Your task to perform on an android device: toggle pop-ups in chrome Image 0: 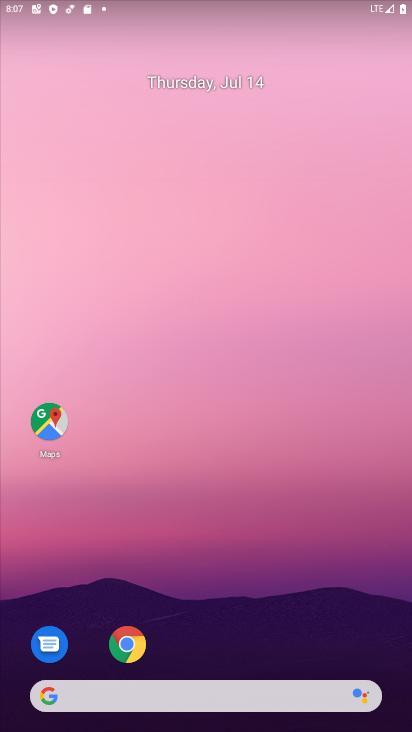
Step 0: click (285, 327)
Your task to perform on an android device: toggle pop-ups in chrome Image 1: 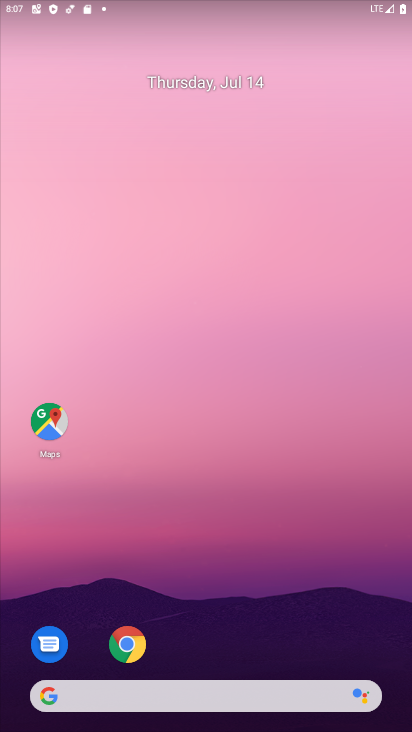
Step 1: drag from (189, 569) to (226, 231)
Your task to perform on an android device: toggle pop-ups in chrome Image 2: 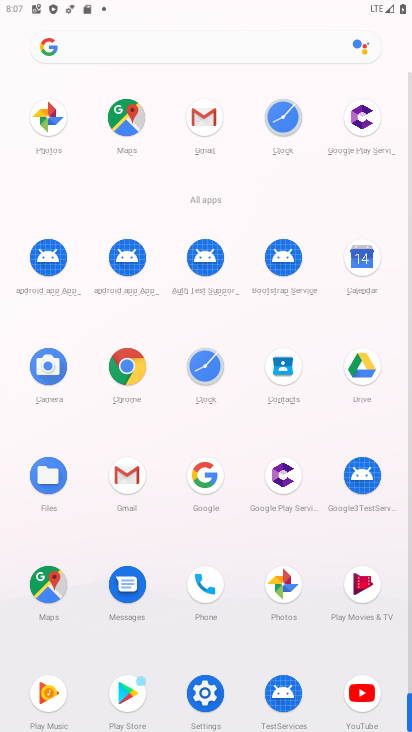
Step 2: drag from (248, 673) to (248, 372)
Your task to perform on an android device: toggle pop-ups in chrome Image 3: 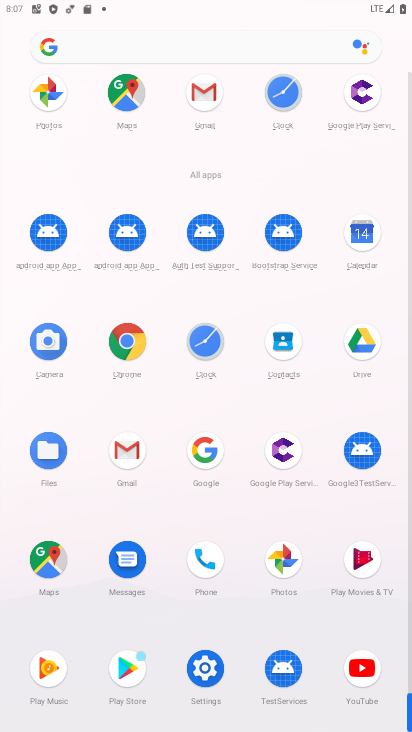
Step 3: click (120, 336)
Your task to perform on an android device: toggle pop-ups in chrome Image 4: 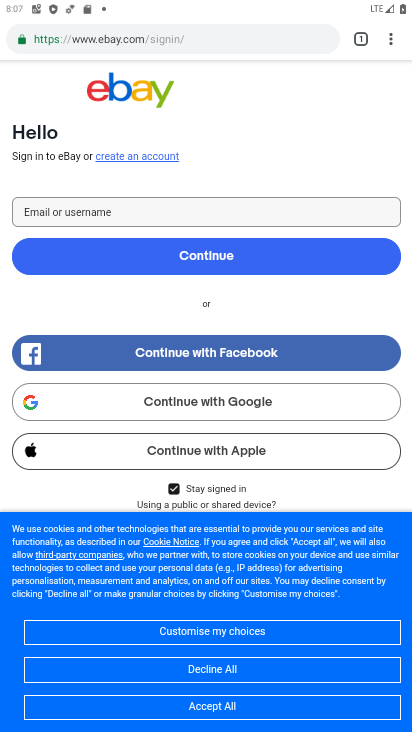
Step 4: drag from (256, 577) to (267, 276)
Your task to perform on an android device: toggle pop-ups in chrome Image 5: 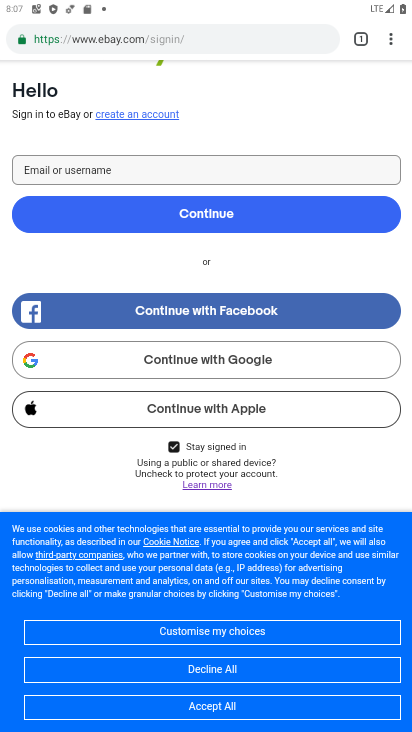
Step 5: drag from (207, 148) to (300, 625)
Your task to perform on an android device: toggle pop-ups in chrome Image 6: 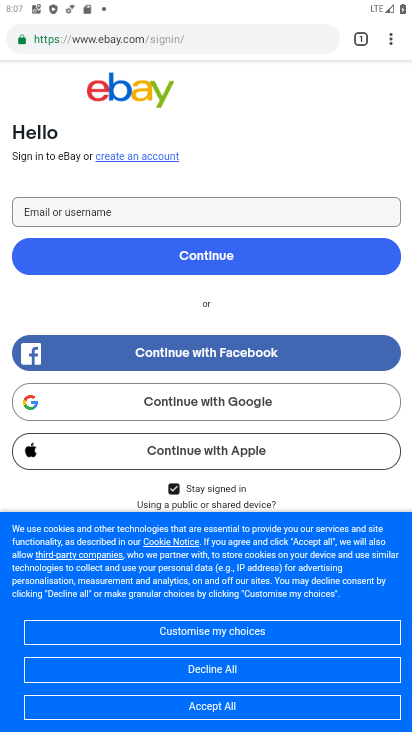
Step 6: drag from (250, 156) to (319, 580)
Your task to perform on an android device: toggle pop-ups in chrome Image 7: 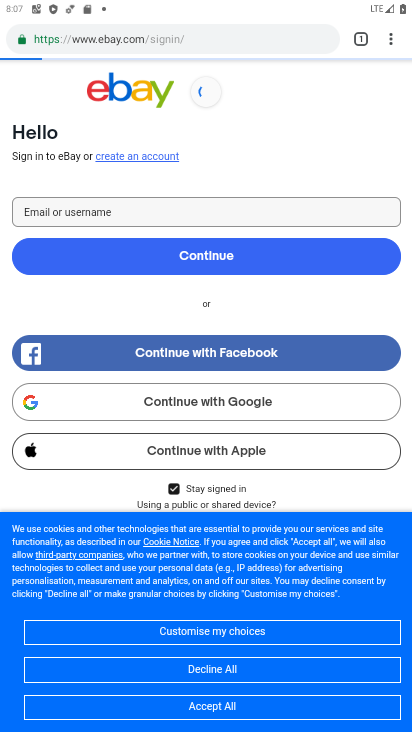
Step 7: drag from (310, 541) to (315, 264)
Your task to perform on an android device: toggle pop-ups in chrome Image 8: 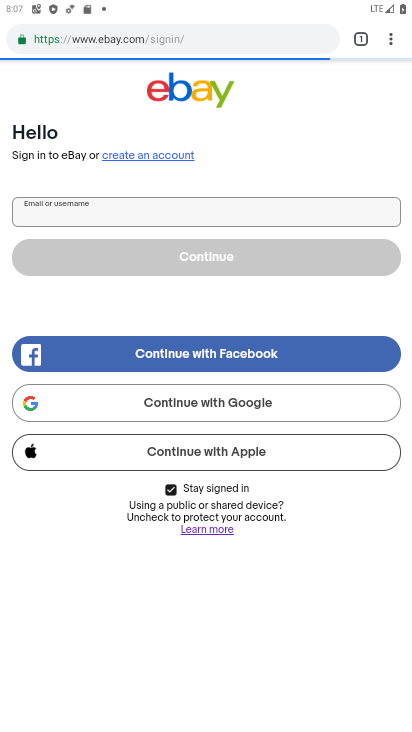
Step 8: drag from (207, 184) to (247, 575)
Your task to perform on an android device: toggle pop-ups in chrome Image 9: 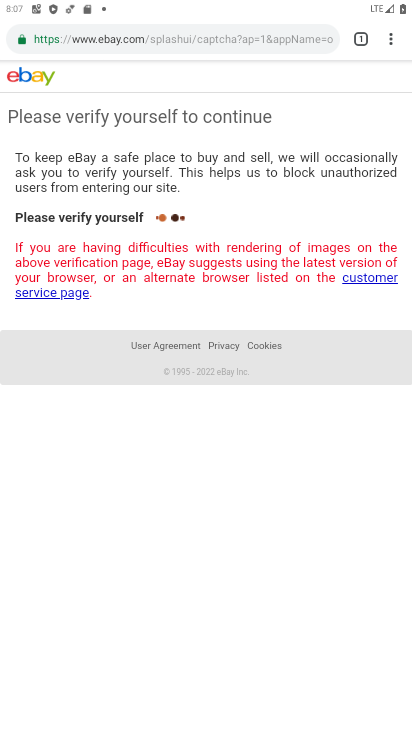
Step 9: click (393, 38)
Your task to perform on an android device: toggle pop-ups in chrome Image 10: 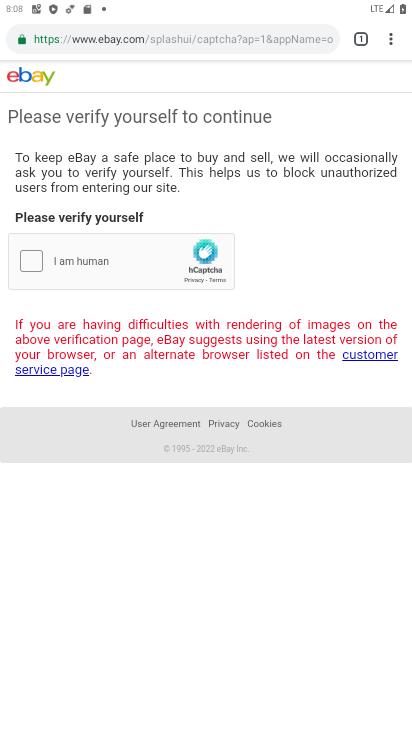
Step 10: drag from (387, 36) to (287, 467)
Your task to perform on an android device: toggle pop-ups in chrome Image 11: 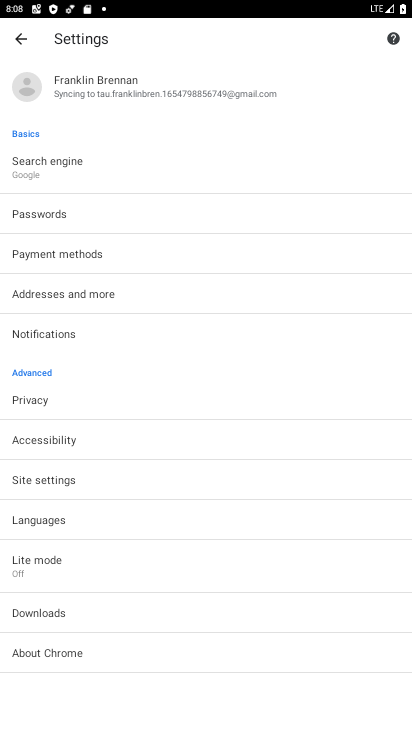
Step 11: drag from (209, 566) to (205, 334)
Your task to perform on an android device: toggle pop-ups in chrome Image 12: 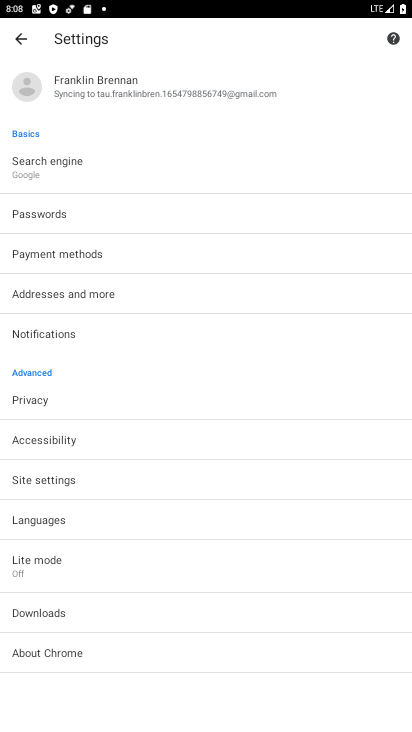
Step 12: drag from (222, 539) to (304, 126)
Your task to perform on an android device: toggle pop-ups in chrome Image 13: 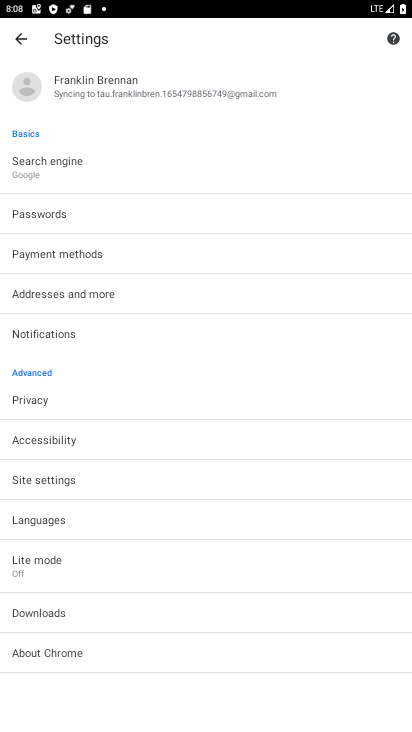
Step 13: drag from (189, 643) to (259, 249)
Your task to perform on an android device: toggle pop-ups in chrome Image 14: 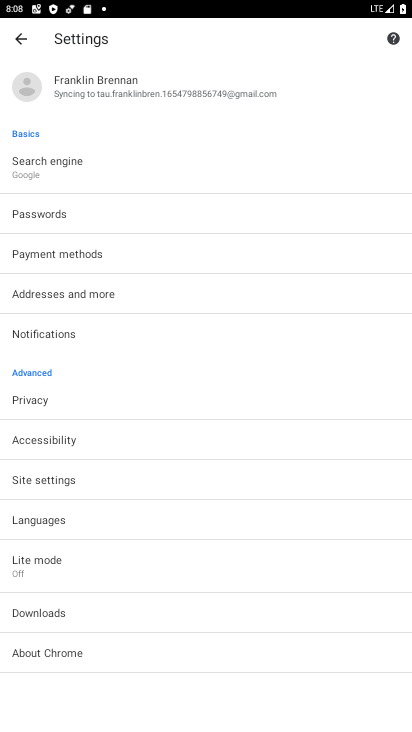
Step 14: click (80, 476)
Your task to perform on an android device: toggle pop-ups in chrome Image 15: 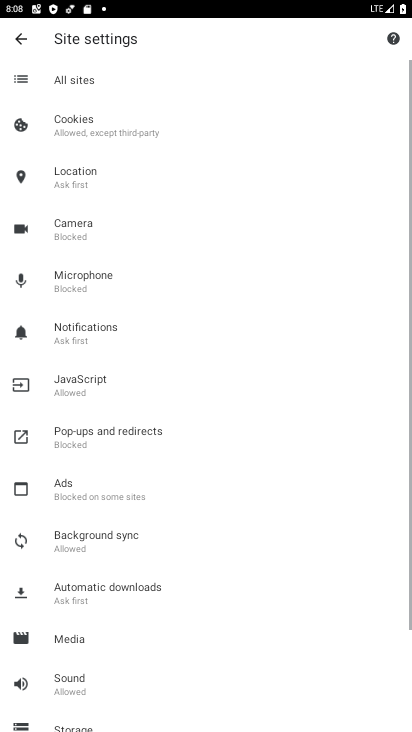
Step 15: drag from (233, 265) to (265, 163)
Your task to perform on an android device: toggle pop-ups in chrome Image 16: 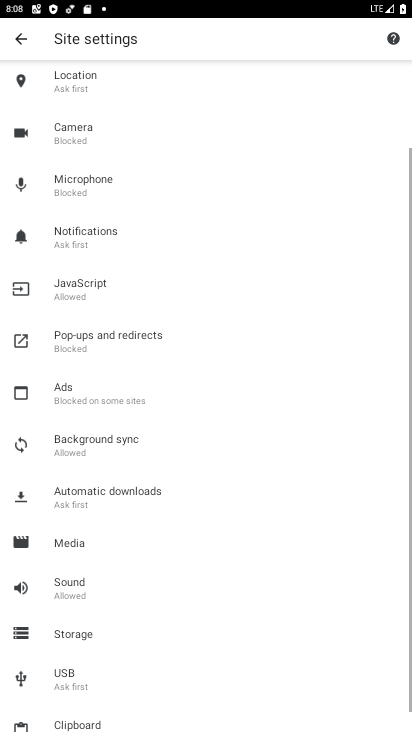
Step 16: drag from (118, 410) to (183, 679)
Your task to perform on an android device: toggle pop-ups in chrome Image 17: 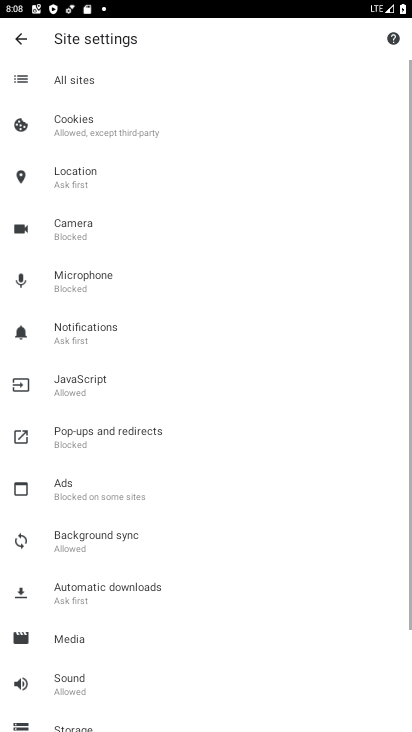
Step 17: click (92, 435)
Your task to perform on an android device: toggle pop-ups in chrome Image 18: 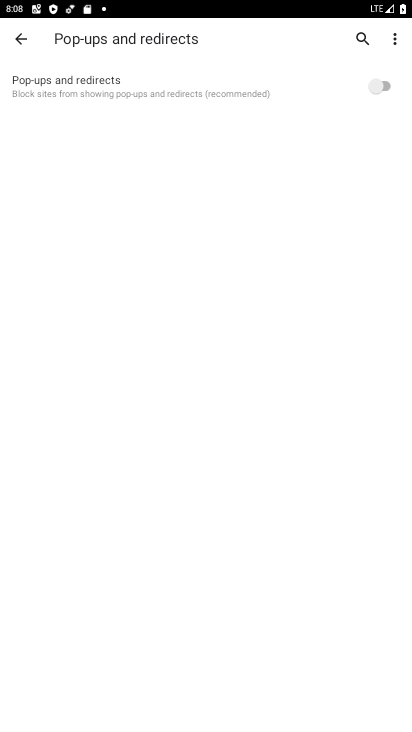
Step 18: drag from (188, 486) to (220, 297)
Your task to perform on an android device: toggle pop-ups in chrome Image 19: 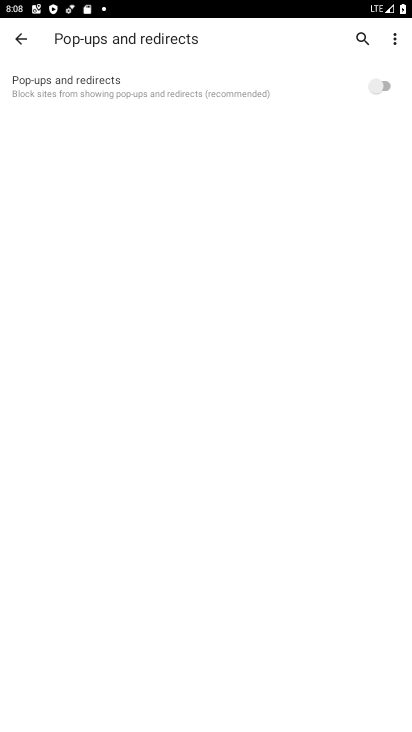
Step 19: drag from (234, 193) to (304, 410)
Your task to perform on an android device: toggle pop-ups in chrome Image 20: 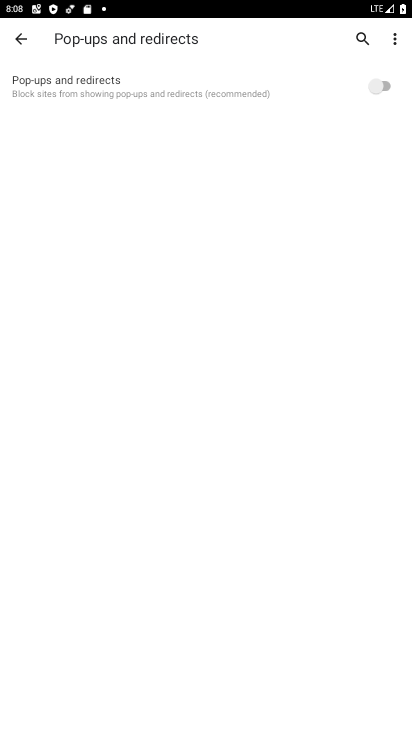
Step 20: click (248, 82)
Your task to perform on an android device: toggle pop-ups in chrome Image 21: 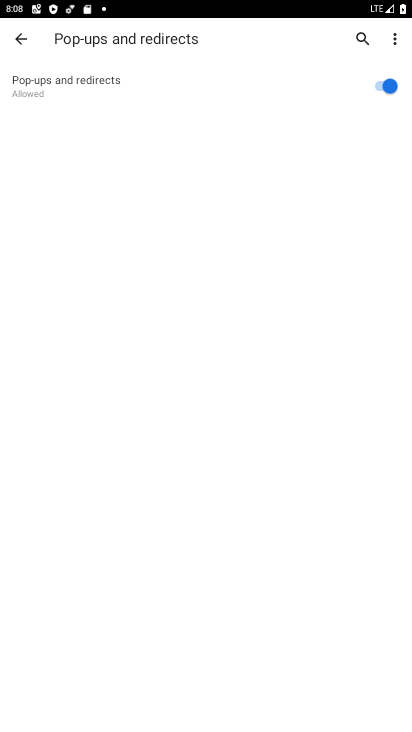
Step 21: task complete